Your task to perform on an android device: What's the weather? Image 0: 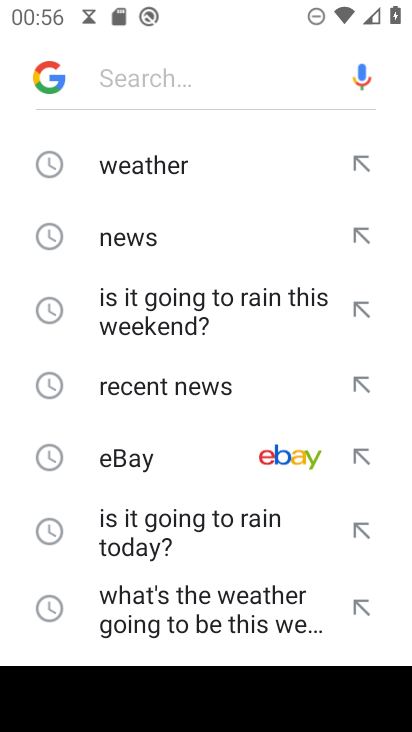
Step 0: type "what's the weather"
Your task to perform on an android device: What's the weather? Image 1: 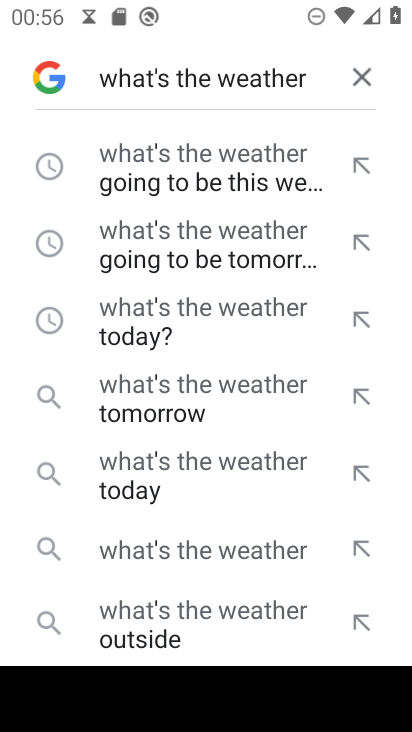
Step 1: click (248, 543)
Your task to perform on an android device: What's the weather? Image 2: 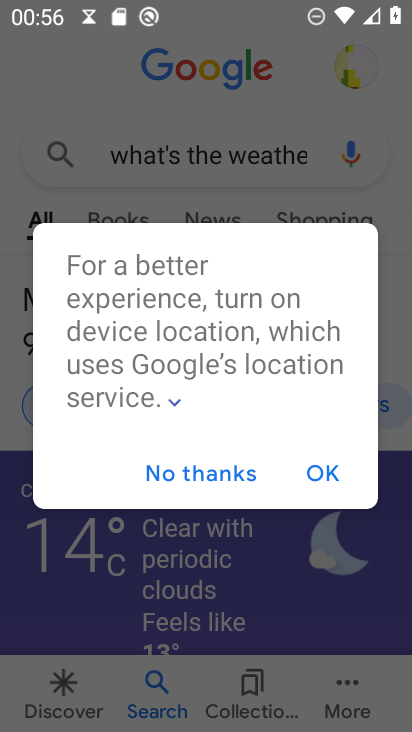
Step 2: click (198, 473)
Your task to perform on an android device: What's the weather? Image 3: 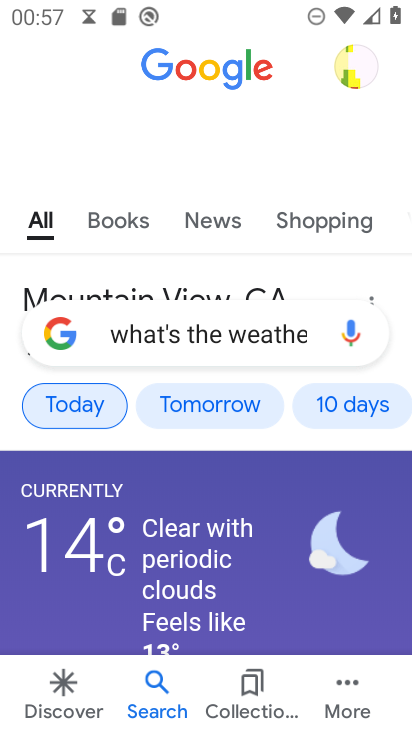
Step 3: task complete